Your task to perform on an android device: Show the shopping cart on costco.com. Add "jbl flip 4" to the cart on costco.com Image 0: 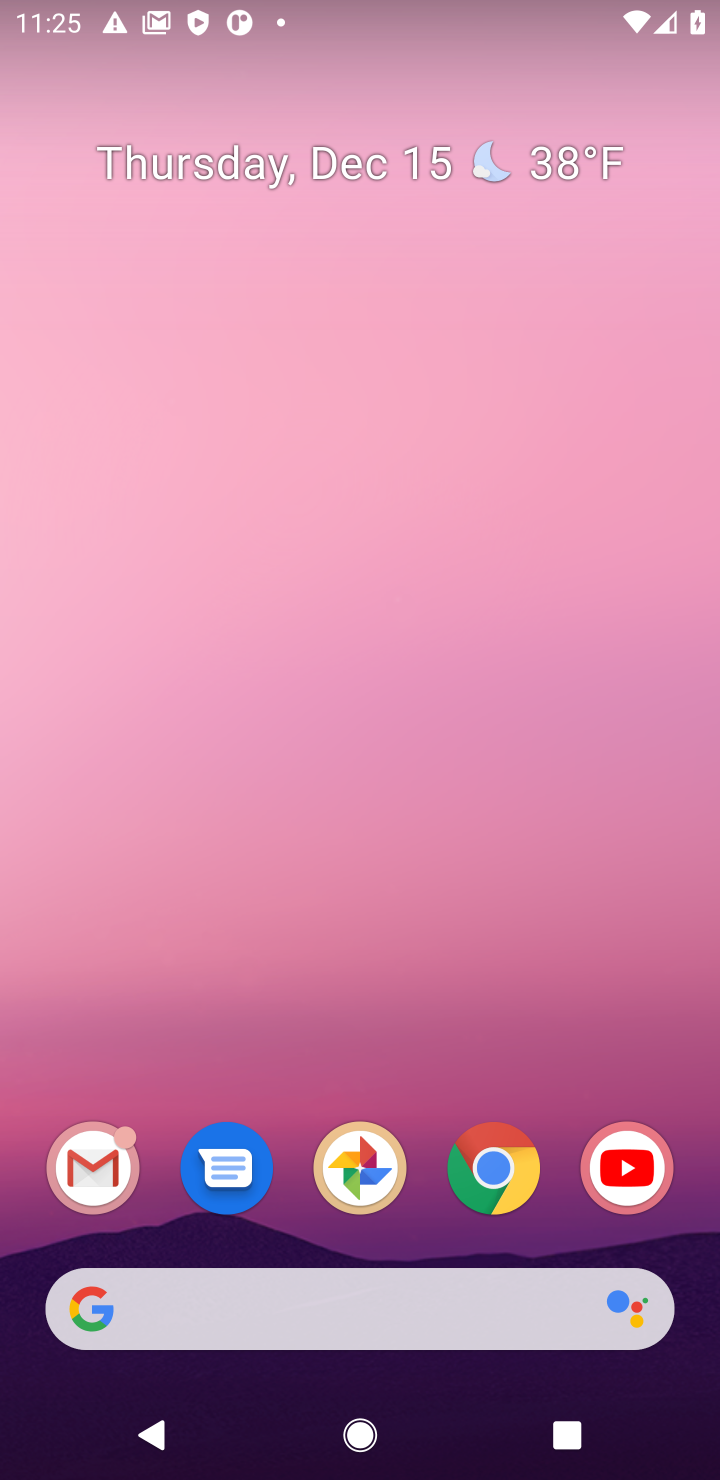
Step 0: click (487, 1177)
Your task to perform on an android device: Show the shopping cart on costco.com. Add "jbl flip 4" to the cart on costco.com Image 1: 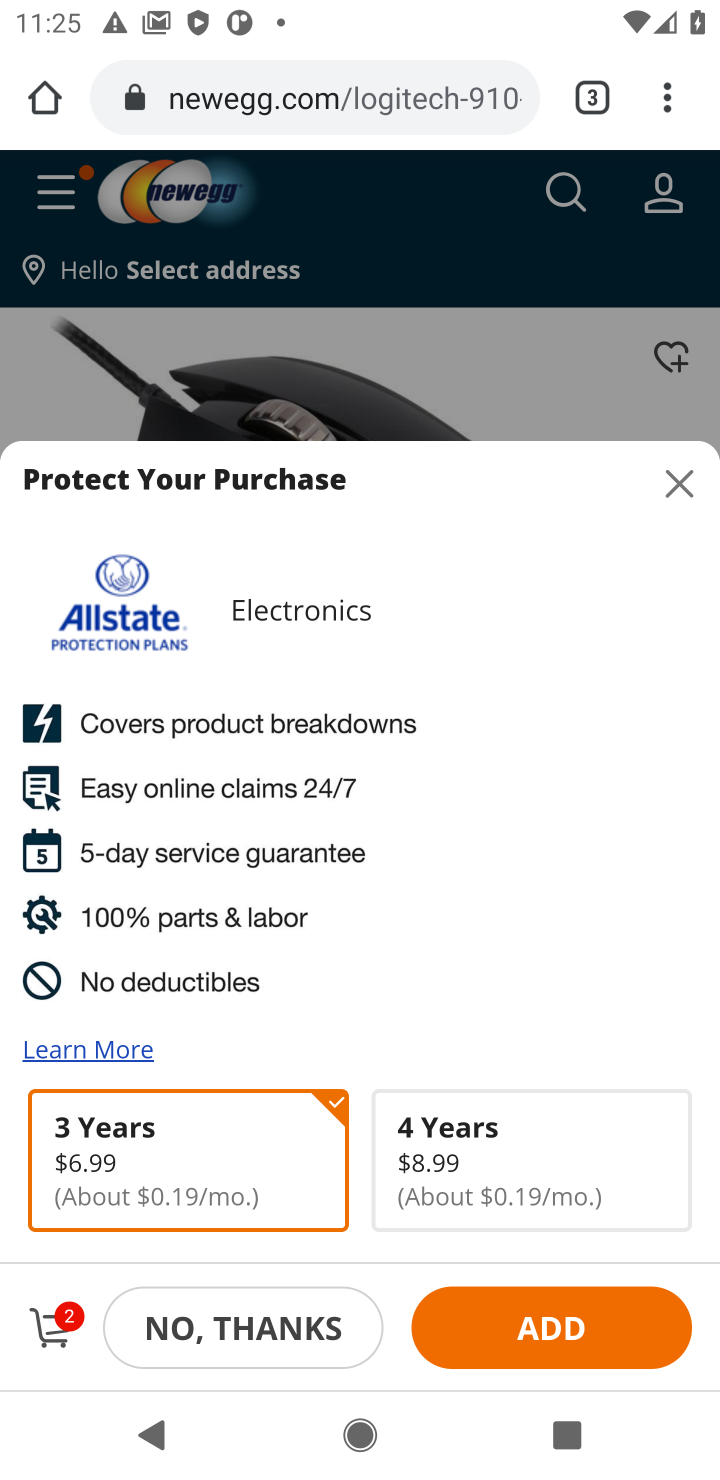
Step 1: click (324, 92)
Your task to perform on an android device: Show the shopping cart on costco.com. Add "jbl flip 4" to the cart on costco.com Image 2: 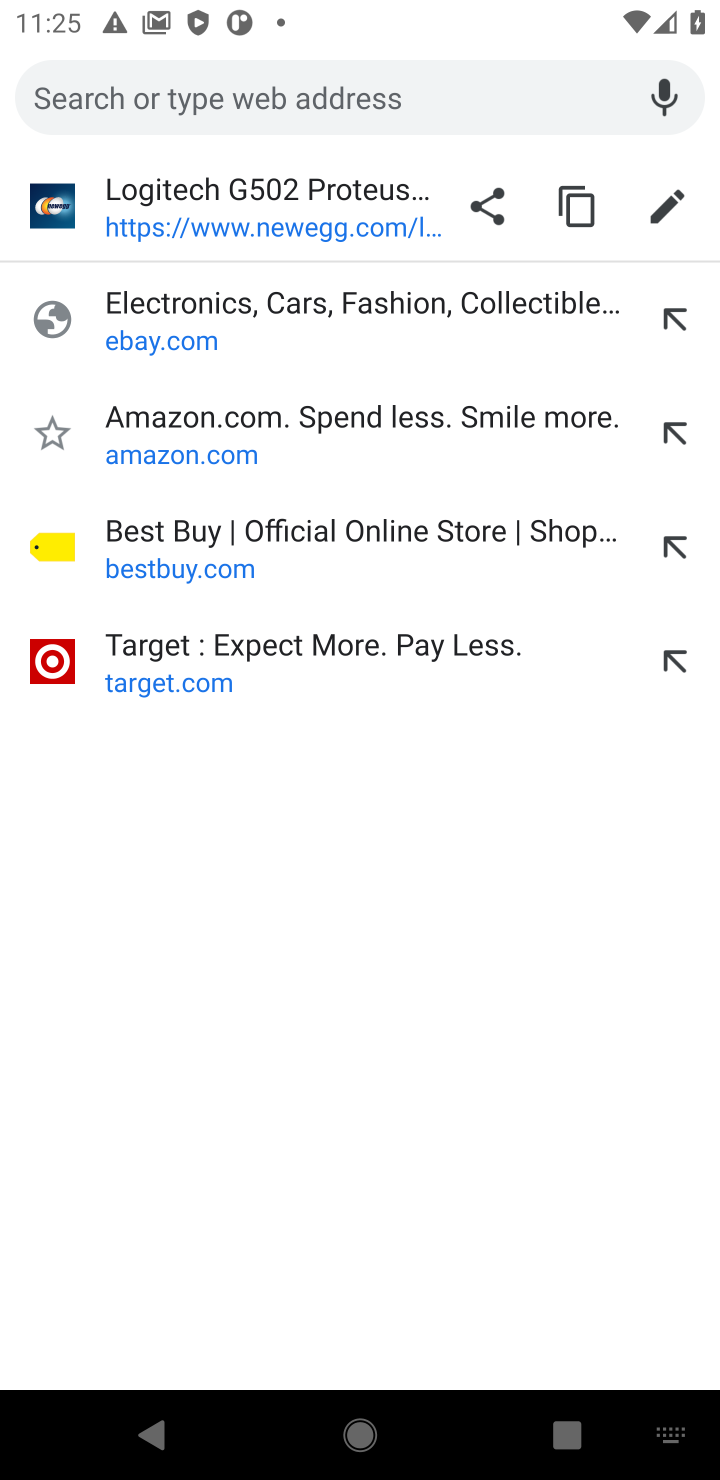
Step 2: type "costco"
Your task to perform on an android device: Show the shopping cart on costco.com. Add "jbl flip 4" to the cart on costco.com Image 3: 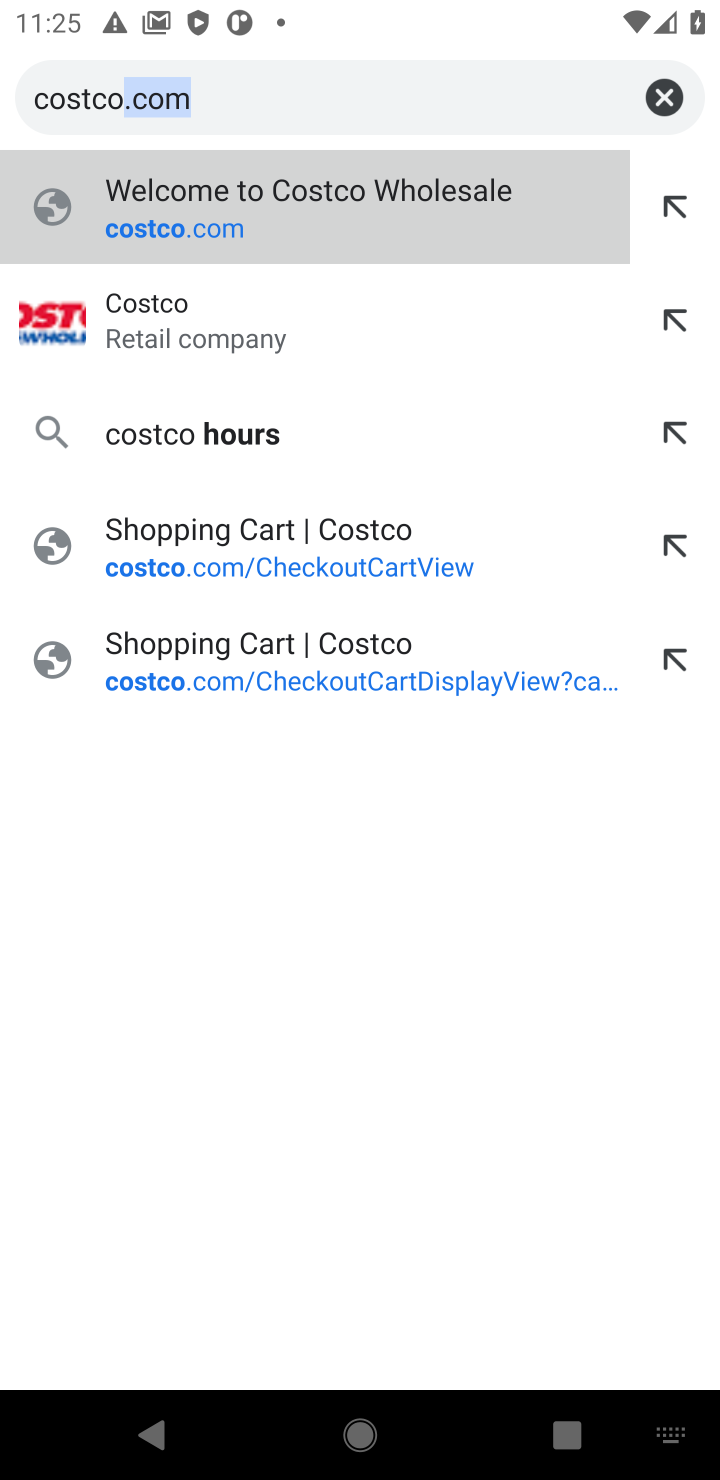
Step 3: click (259, 213)
Your task to perform on an android device: Show the shopping cart on costco.com. Add "jbl flip 4" to the cart on costco.com Image 4: 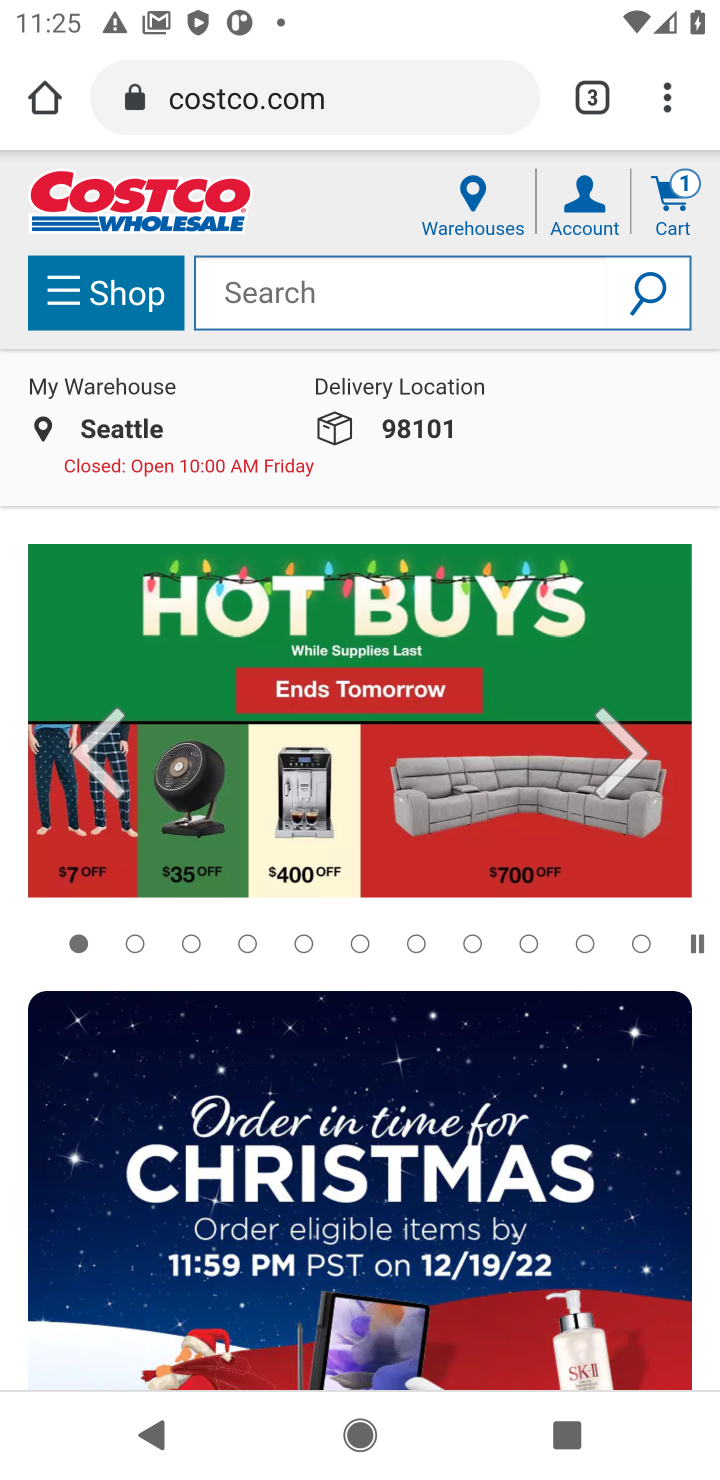
Step 4: click (489, 274)
Your task to perform on an android device: Show the shopping cart on costco.com. Add "jbl flip 4" to the cart on costco.com Image 5: 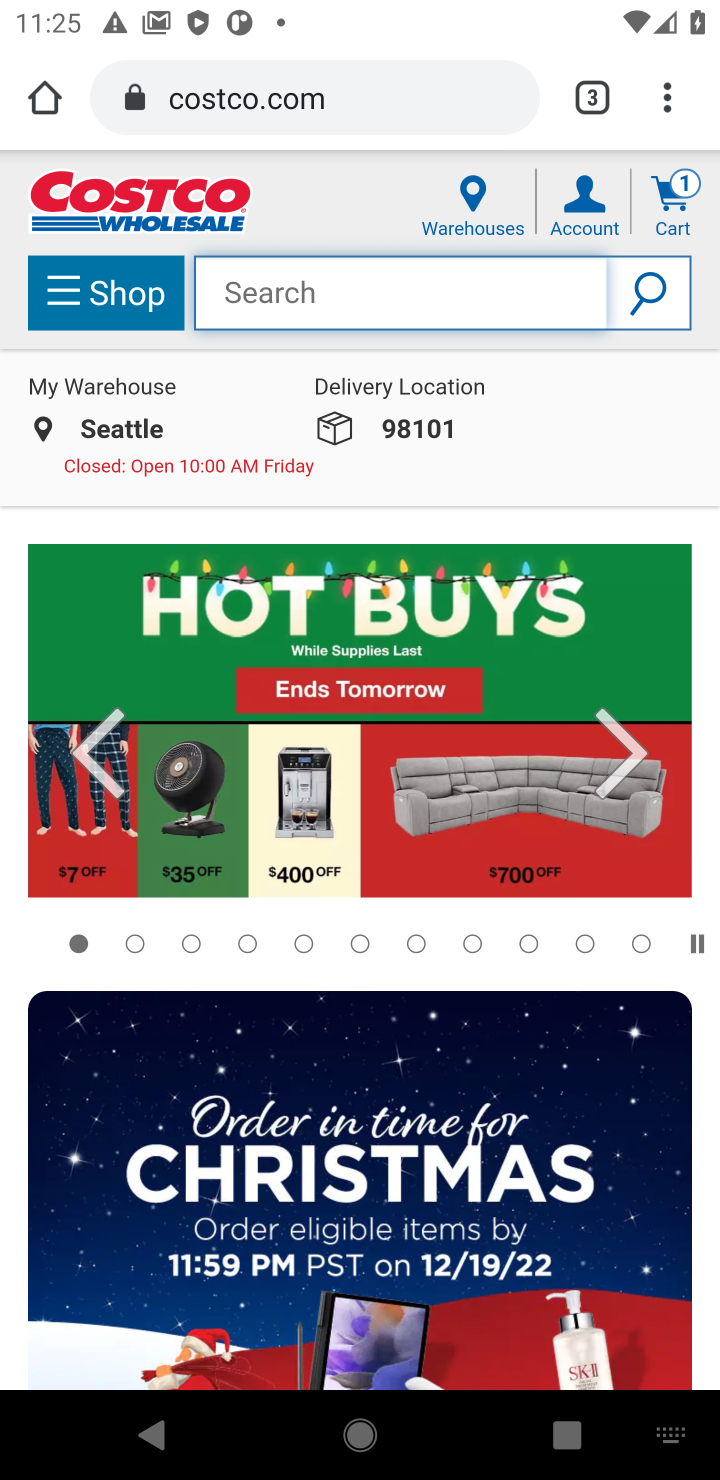
Step 5: type "jbl flip 4"
Your task to perform on an android device: Show the shopping cart on costco.com. Add "jbl flip 4" to the cart on costco.com Image 6: 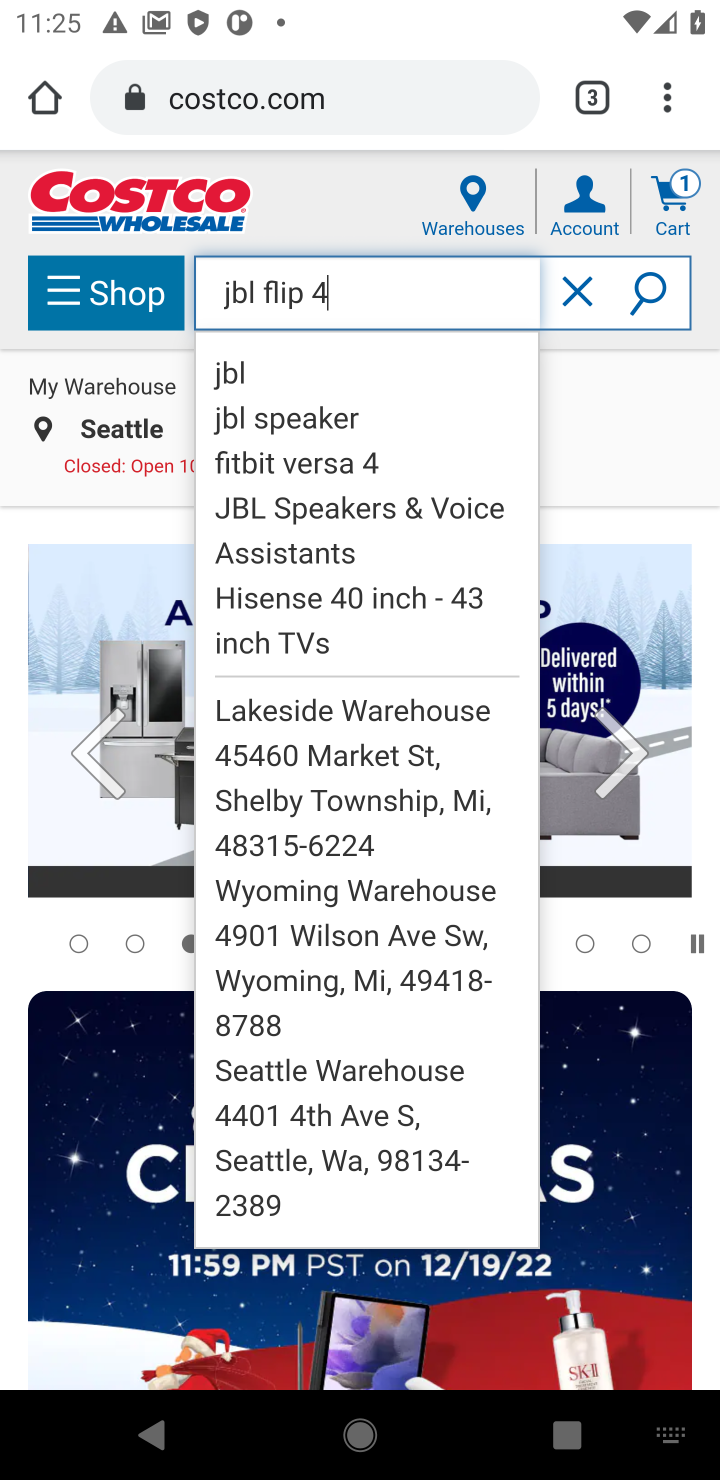
Step 6: click (286, 373)
Your task to perform on an android device: Show the shopping cart on costco.com. Add "jbl flip 4" to the cart on costco.com Image 7: 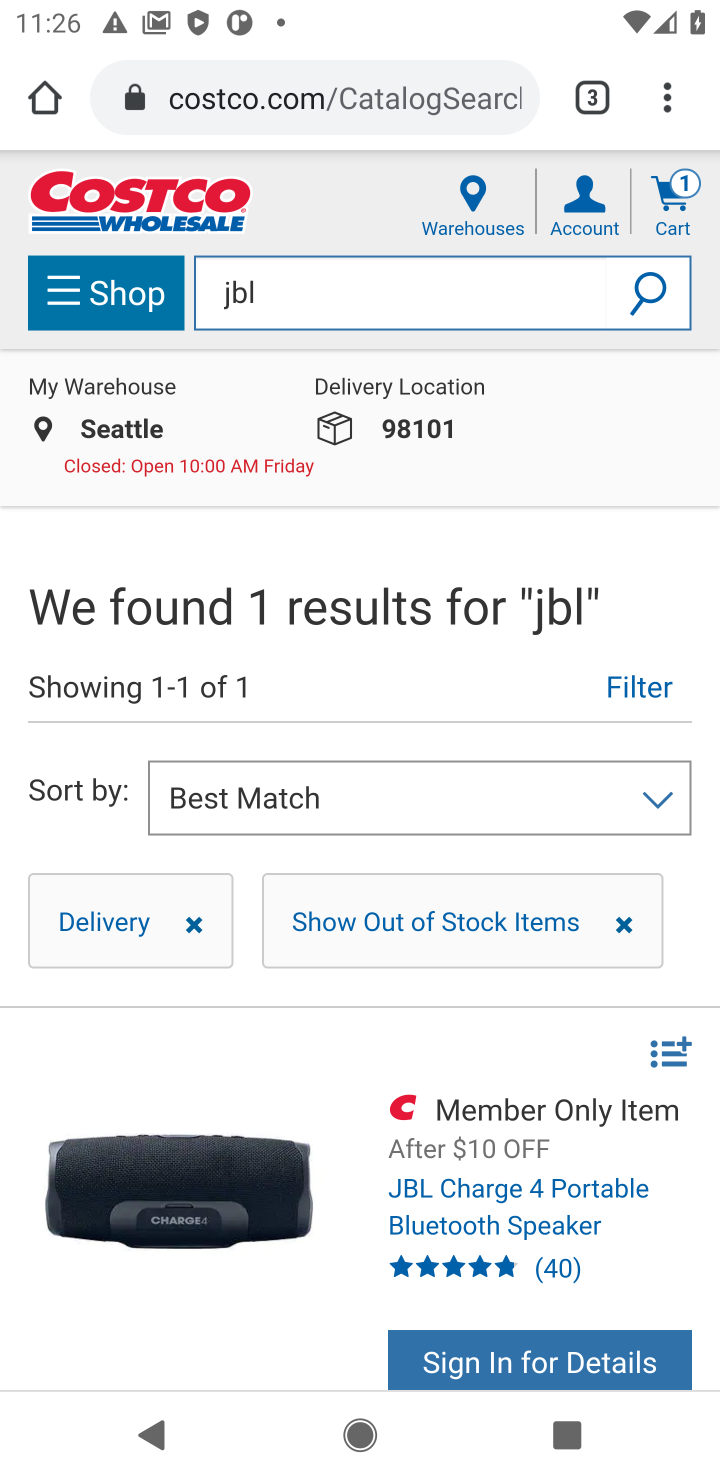
Step 7: click (270, 1243)
Your task to perform on an android device: Show the shopping cart on costco.com. Add "jbl flip 4" to the cart on costco.com Image 8: 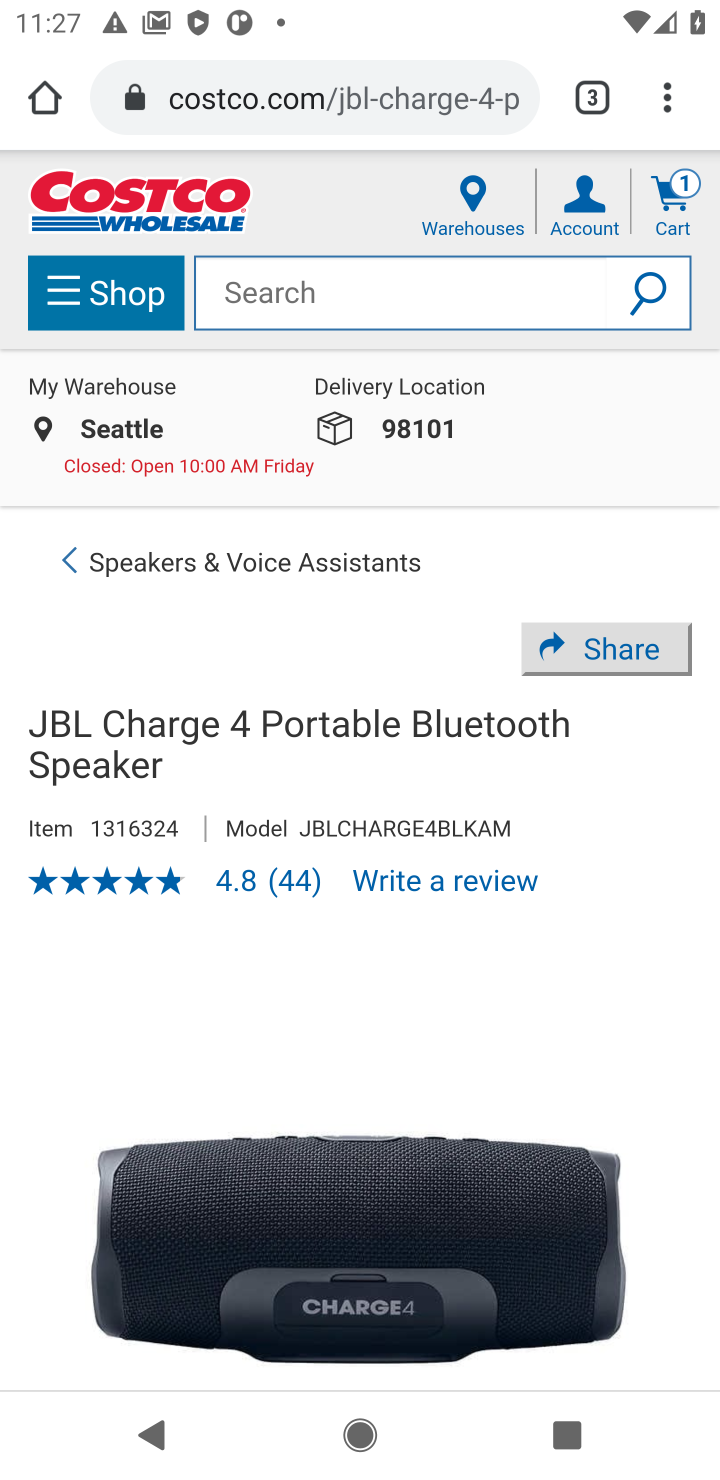
Step 8: task complete